Your task to perform on an android device: Clear the cart on amazon.com. Image 0: 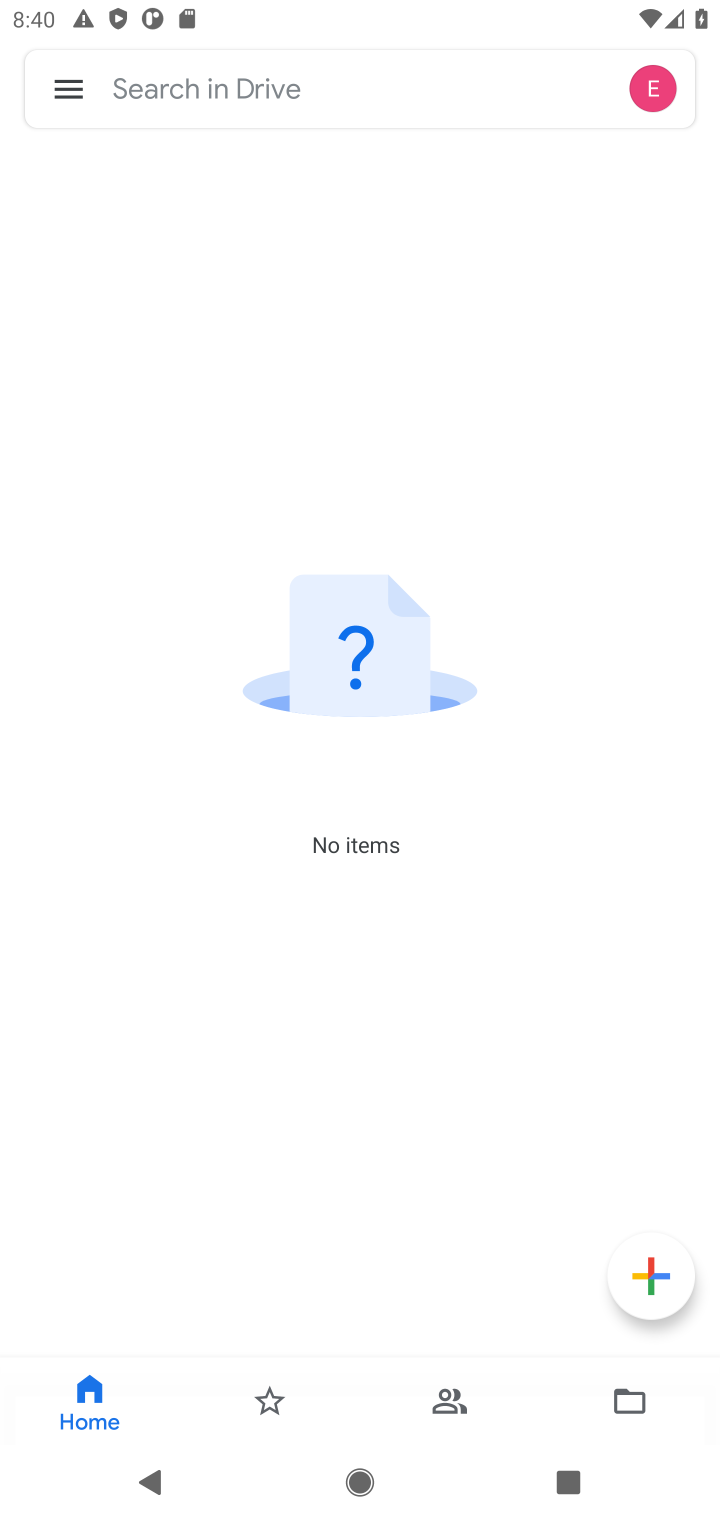
Step 0: press home button
Your task to perform on an android device: Clear the cart on amazon.com. Image 1: 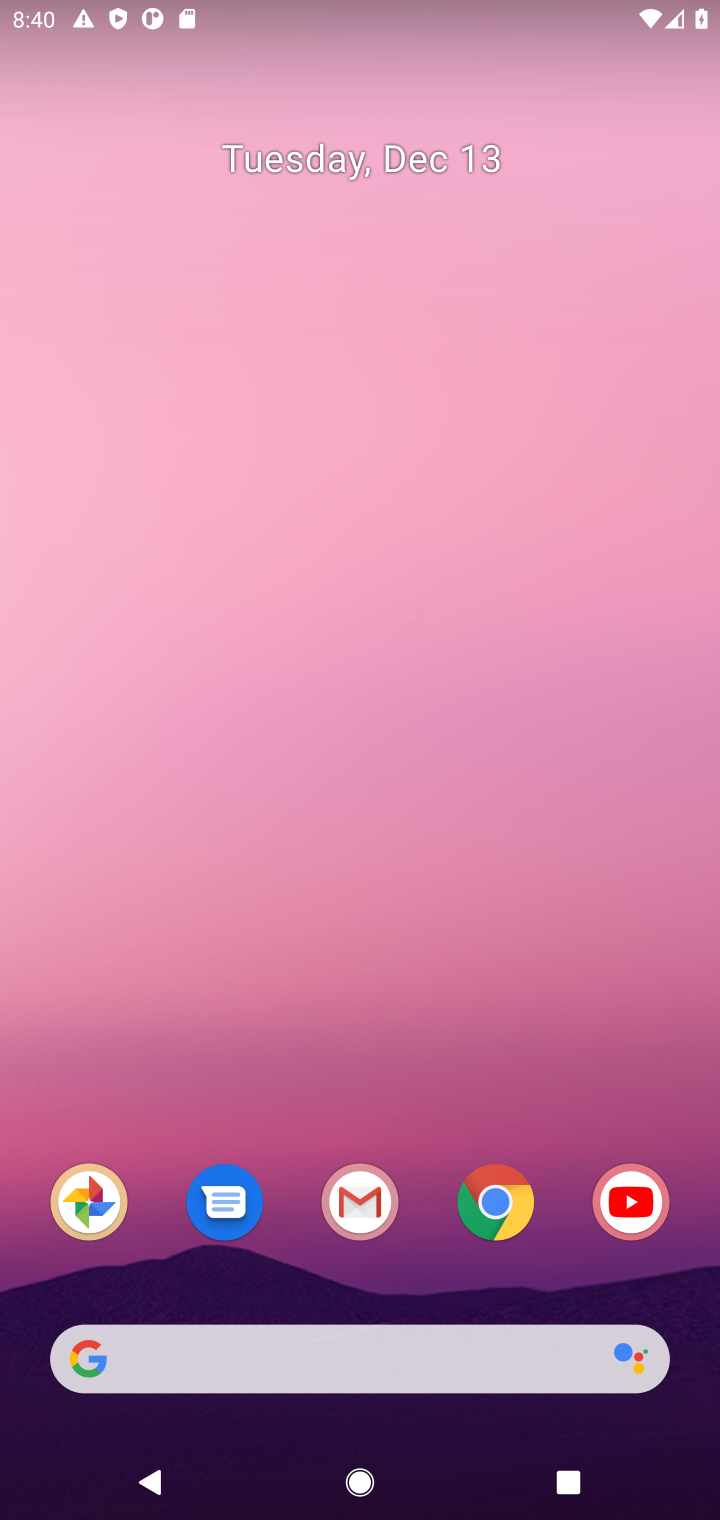
Step 1: click (520, 1218)
Your task to perform on an android device: Clear the cart on amazon.com. Image 2: 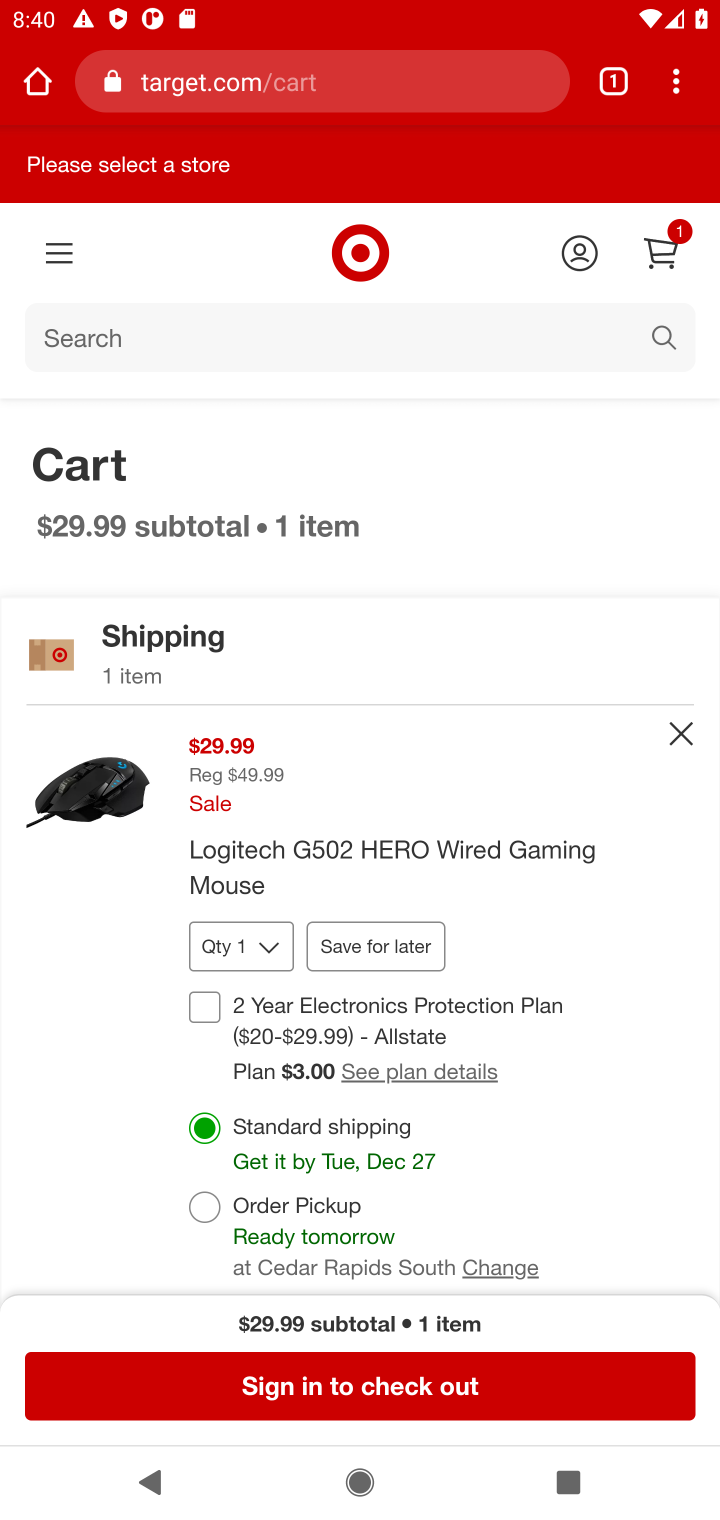
Step 2: click (240, 72)
Your task to perform on an android device: Clear the cart on amazon.com. Image 3: 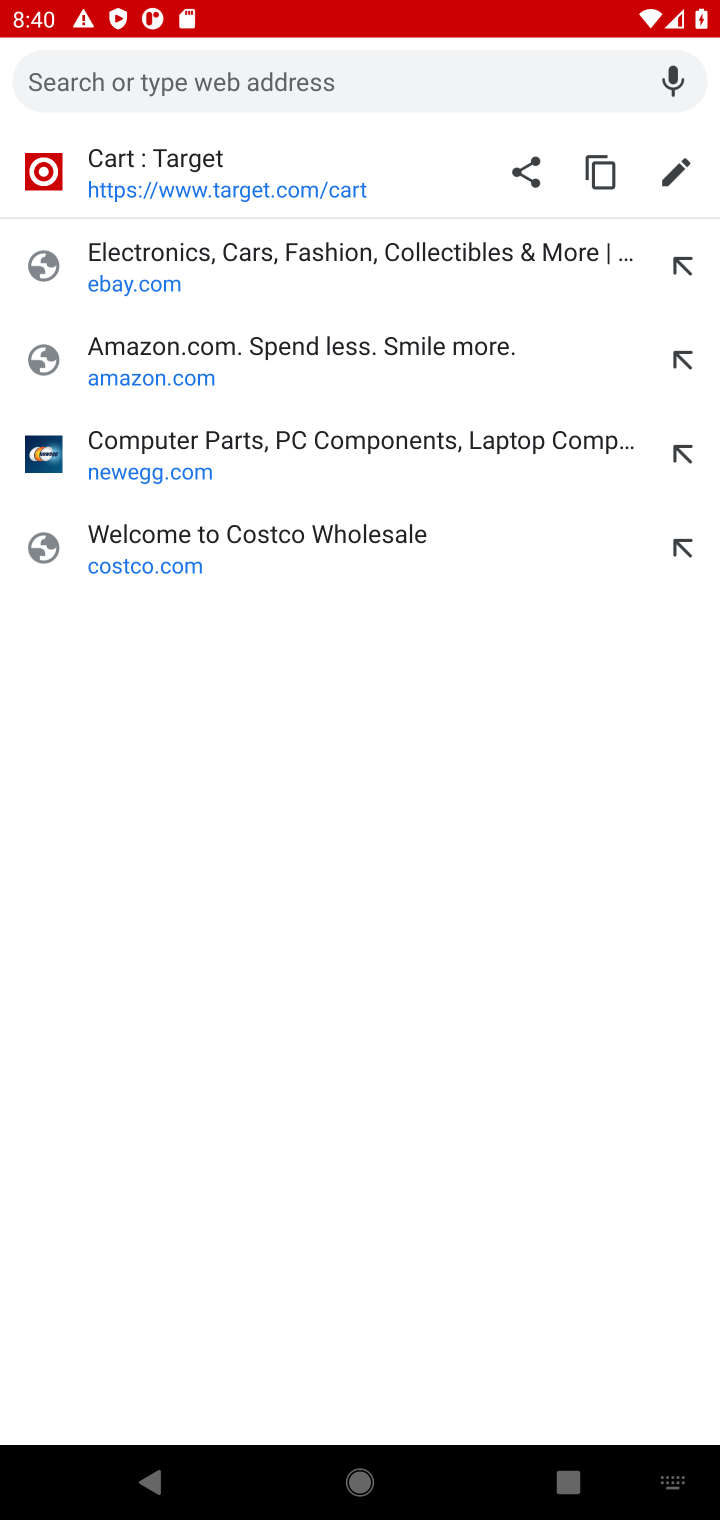
Step 3: click (104, 355)
Your task to perform on an android device: Clear the cart on amazon.com. Image 4: 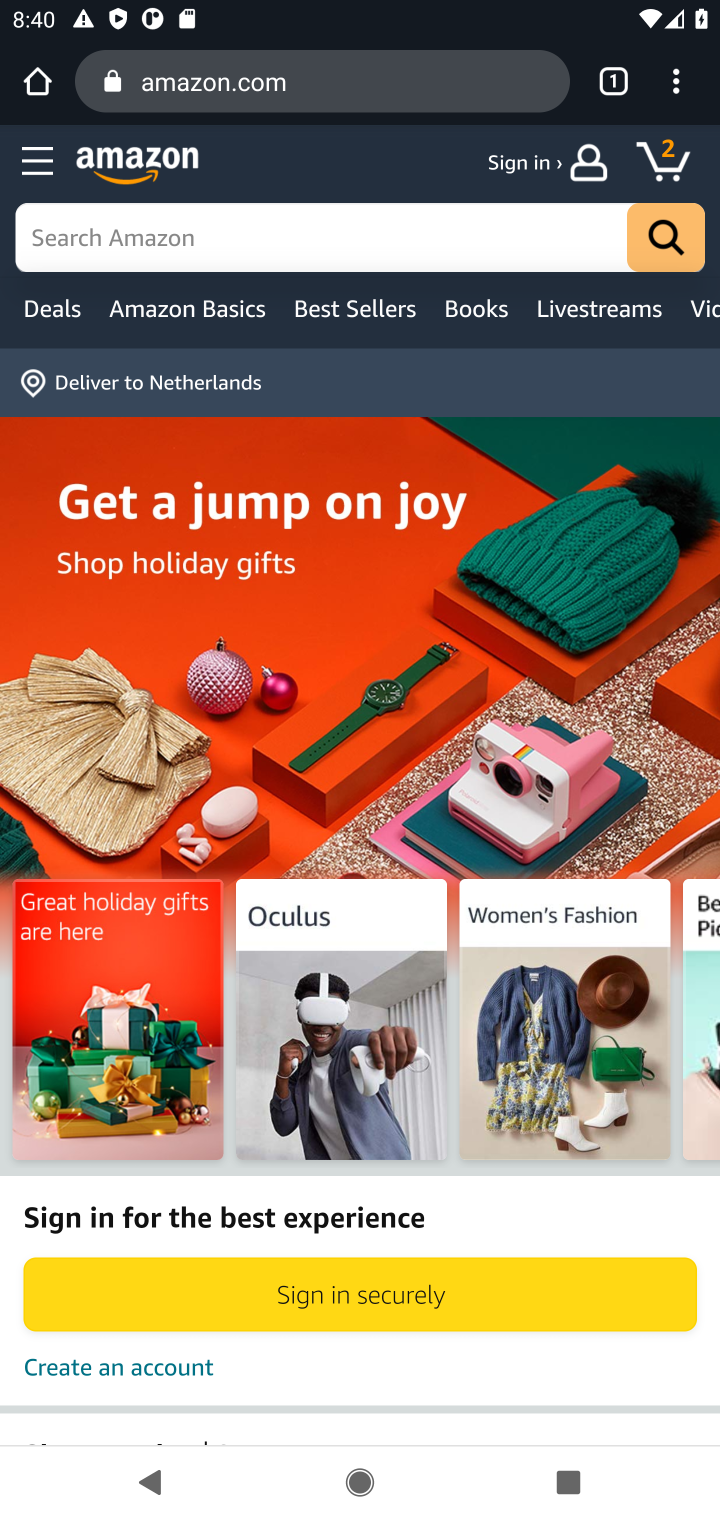
Step 4: click (672, 176)
Your task to perform on an android device: Clear the cart on amazon.com. Image 5: 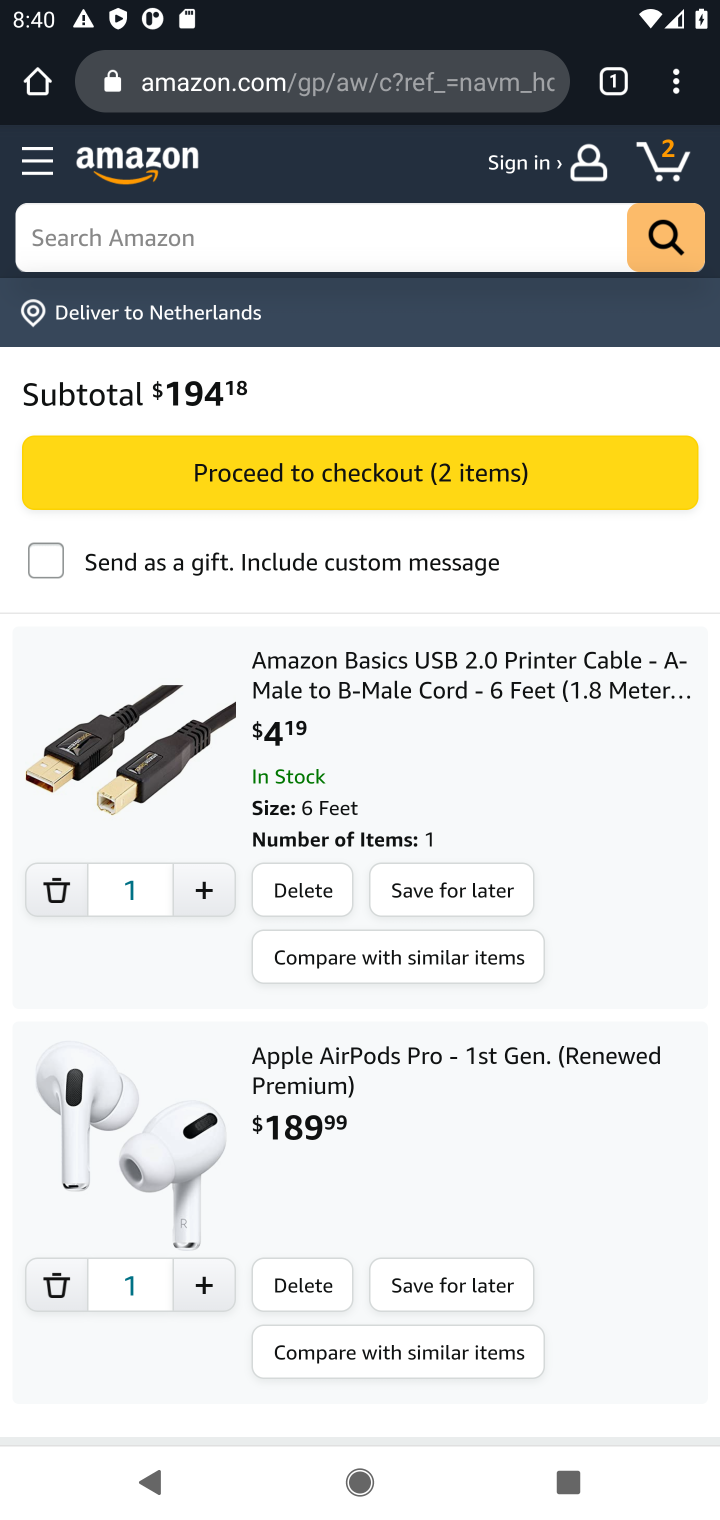
Step 5: click (286, 886)
Your task to perform on an android device: Clear the cart on amazon.com. Image 6: 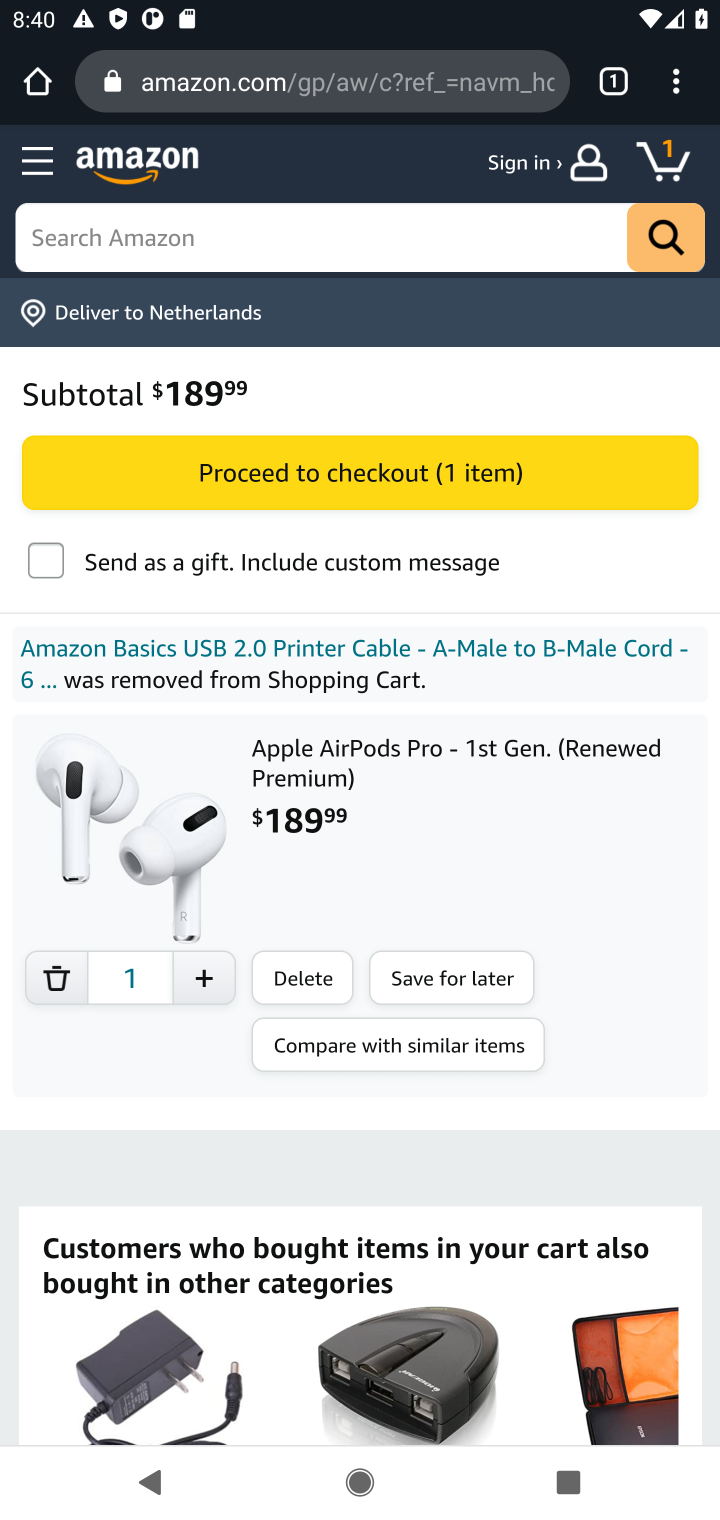
Step 6: click (292, 970)
Your task to perform on an android device: Clear the cart on amazon.com. Image 7: 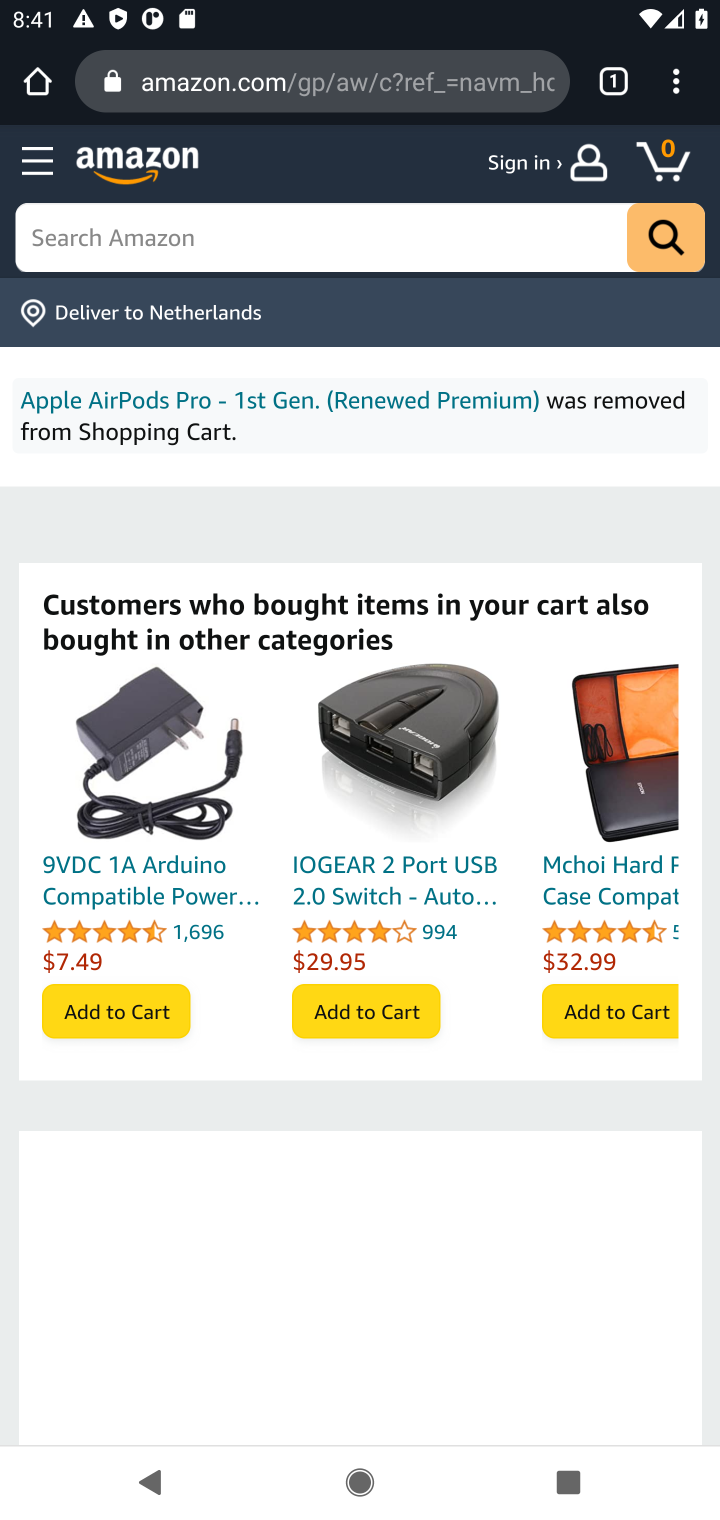
Step 7: task complete